Your task to perform on an android device: Open wifi settings Image 0: 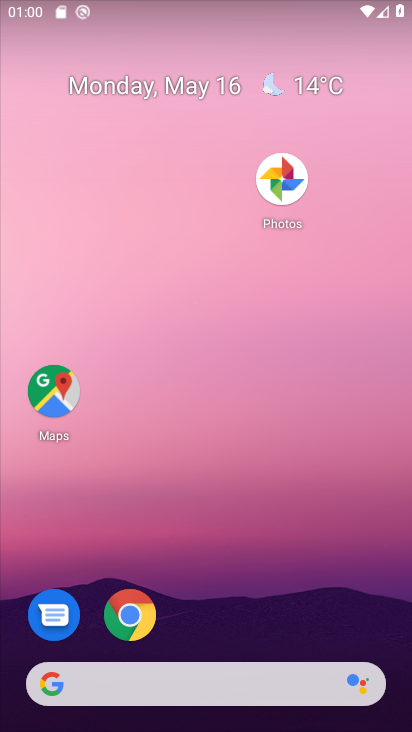
Step 0: drag from (285, 497) to (269, 126)
Your task to perform on an android device: Open wifi settings Image 1: 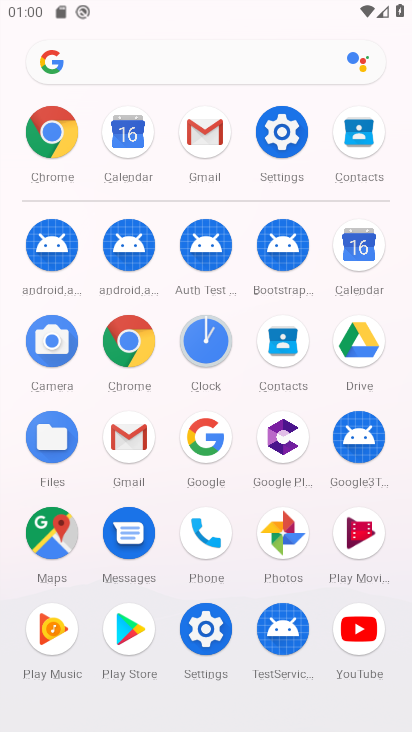
Step 1: click (278, 142)
Your task to perform on an android device: Open wifi settings Image 2: 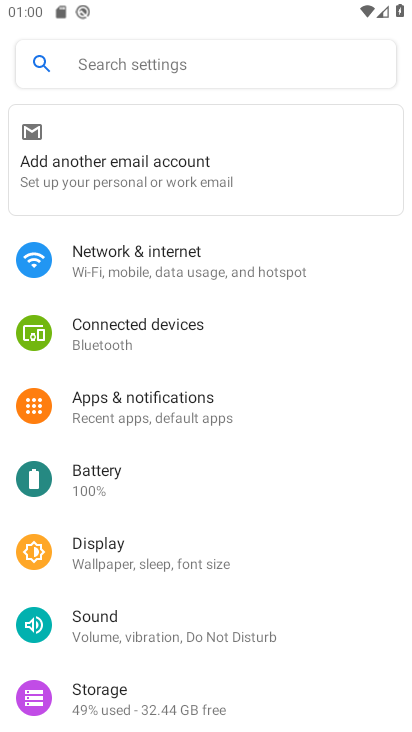
Step 2: click (113, 255)
Your task to perform on an android device: Open wifi settings Image 3: 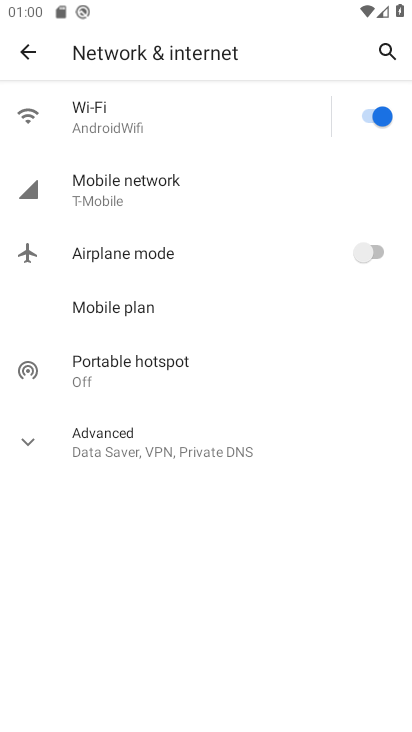
Step 3: click (241, 103)
Your task to perform on an android device: Open wifi settings Image 4: 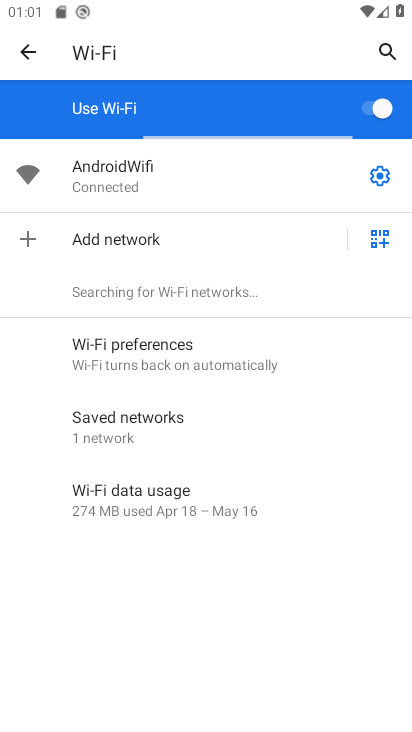
Step 4: click (388, 178)
Your task to perform on an android device: Open wifi settings Image 5: 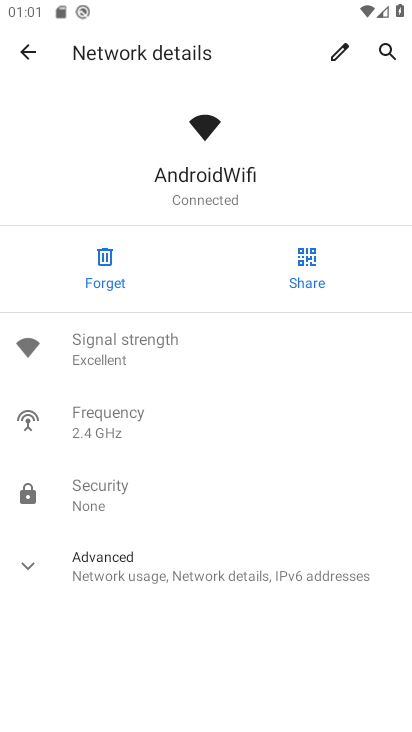
Step 5: task complete